Your task to perform on an android device: open the mobile data screen to see how much data has been used Image 0: 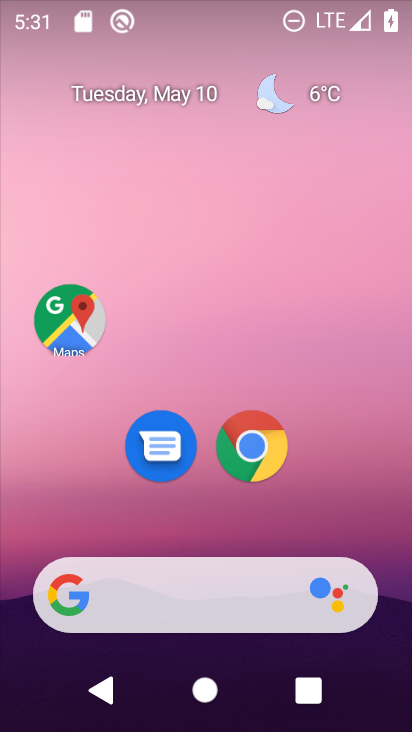
Step 0: drag from (227, 527) to (213, 65)
Your task to perform on an android device: open the mobile data screen to see how much data has been used Image 1: 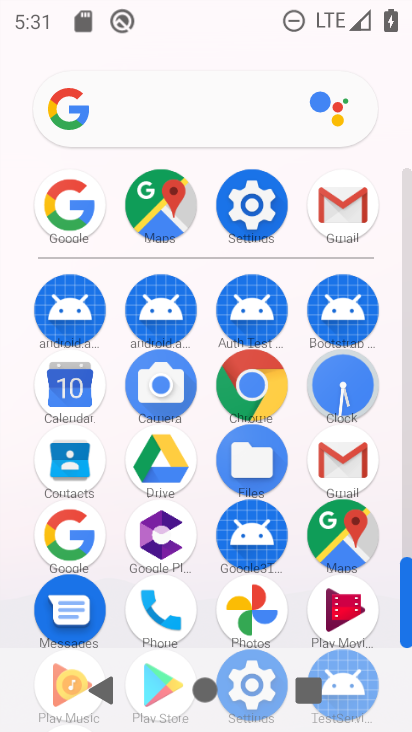
Step 1: click (260, 211)
Your task to perform on an android device: open the mobile data screen to see how much data has been used Image 2: 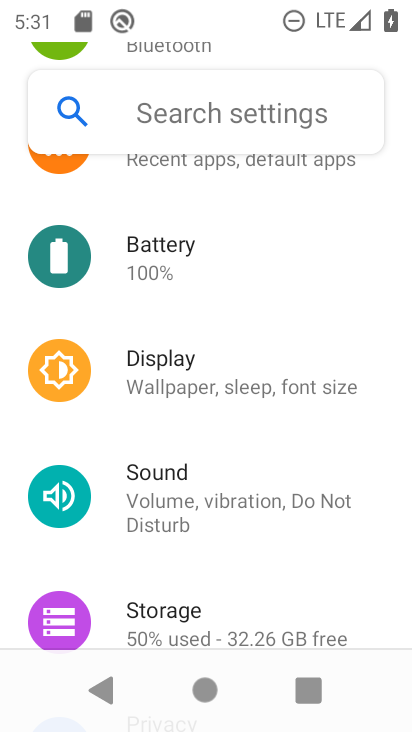
Step 2: drag from (269, 215) to (255, 681)
Your task to perform on an android device: open the mobile data screen to see how much data has been used Image 3: 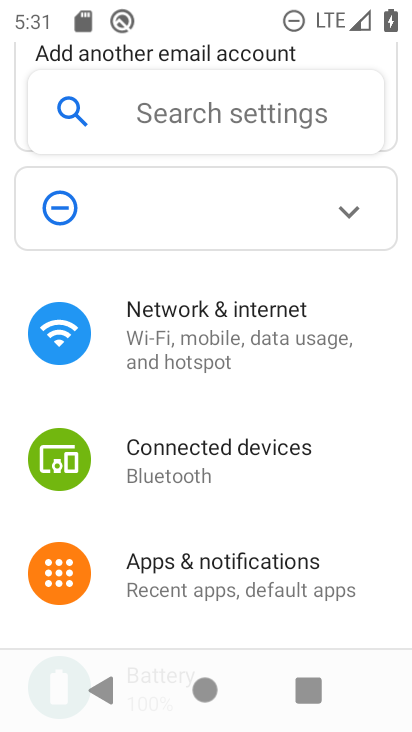
Step 3: click (258, 335)
Your task to perform on an android device: open the mobile data screen to see how much data has been used Image 4: 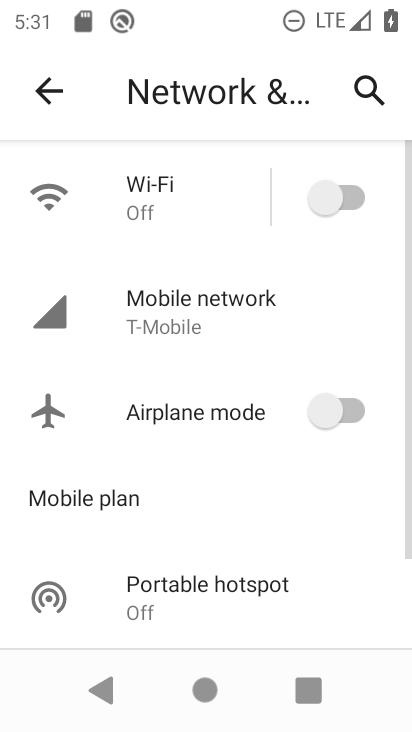
Step 4: click (145, 312)
Your task to perform on an android device: open the mobile data screen to see how much data has been used Image 5: 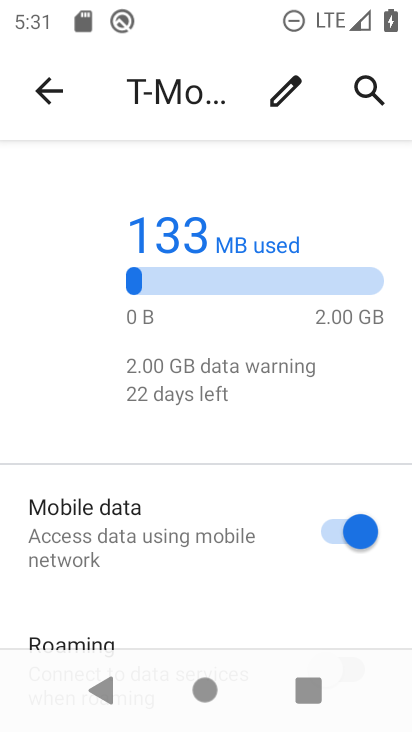
Step 5: task complete